Your task to perform on an android device: Clear the cart on newegg.com. Search for "apple airpods pro" on newegg.com, select the first entry, and add it to the cart. Image 0: 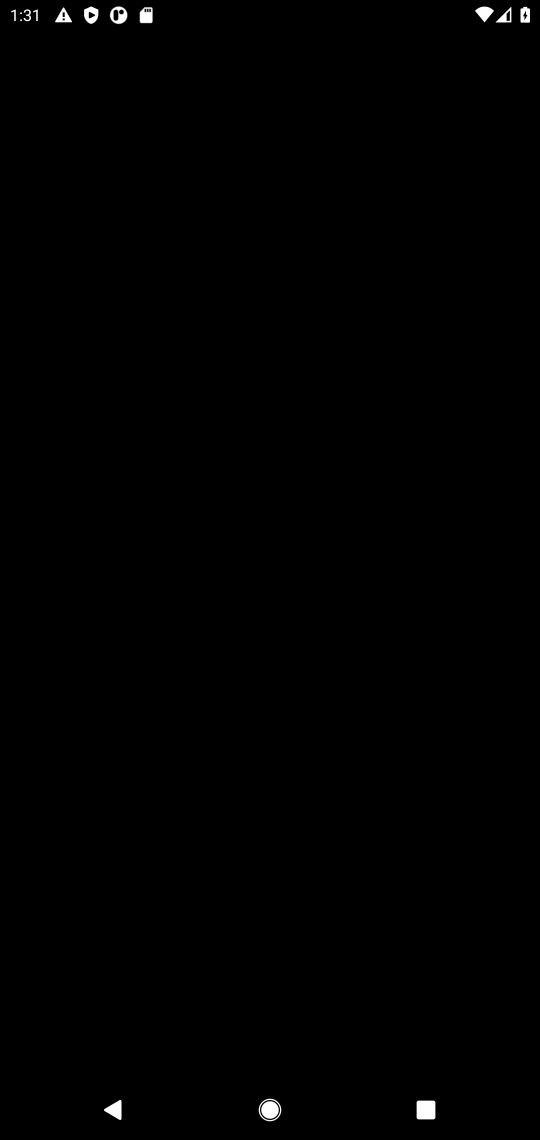
Step 0: press home button
Your task to perform on an android device: Clear the cart on newegg.com. Search for "apple airpods pro" on newegg.com, select the first entry, and add it to the cart. Image 1: 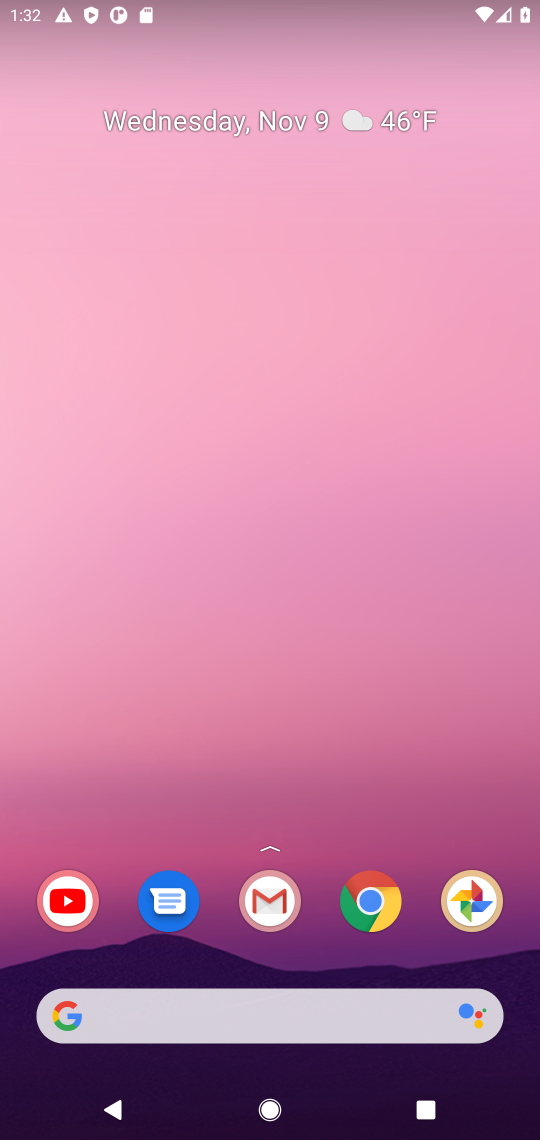
Step 1: click (365, 892)
Your task to perform on an android device: Clear the cart on newegg.com. Search for "apple airpods pro" on newegg.com, select the first entry, and add it to the cart. Image 2: 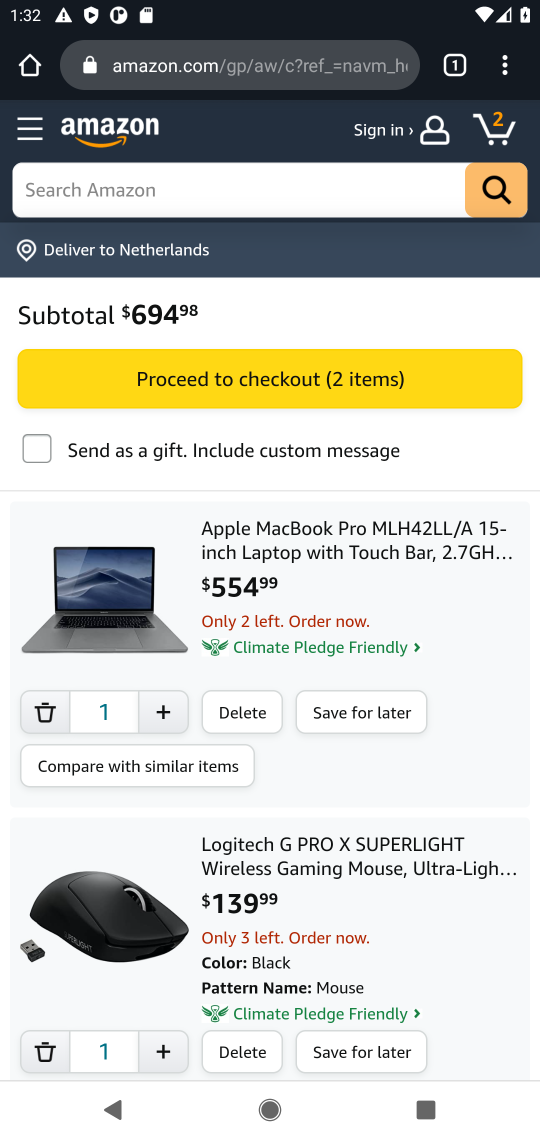
Step 2: click (284, 65)
Your task to perform on an android device: Clear the cart on newegg.com. Search for "apple airpods pro" on newegg.com, select the first entry, and add it to the cart. Image 3: 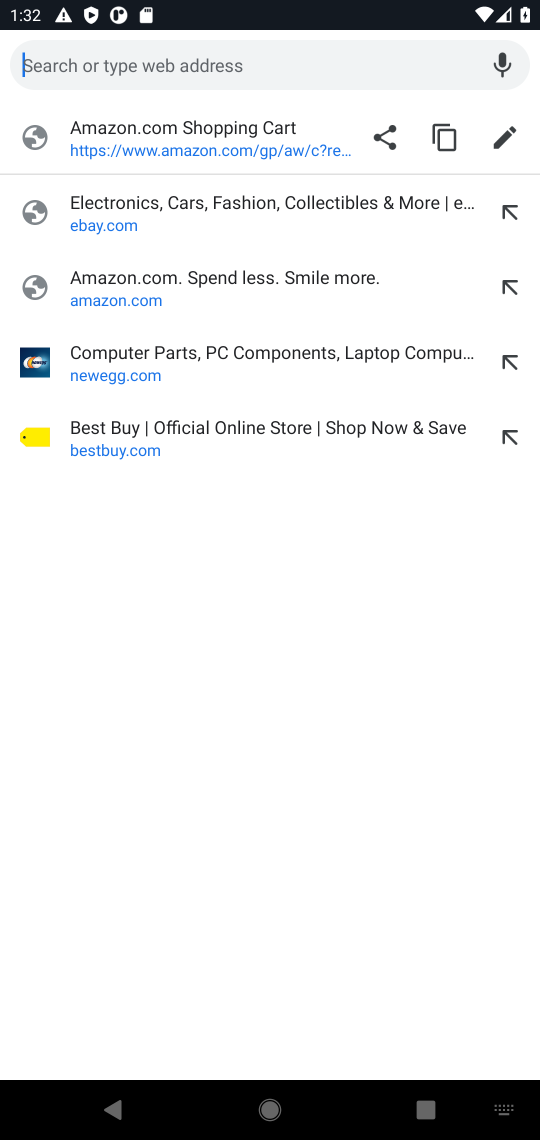
Step 3: type "newegg.com"
Your task to perform on an android device: Clear the cart on newegg.com. Search for "apple airpods pro" on newegg.com, select the first entry, and add it to the cart. Image 4: 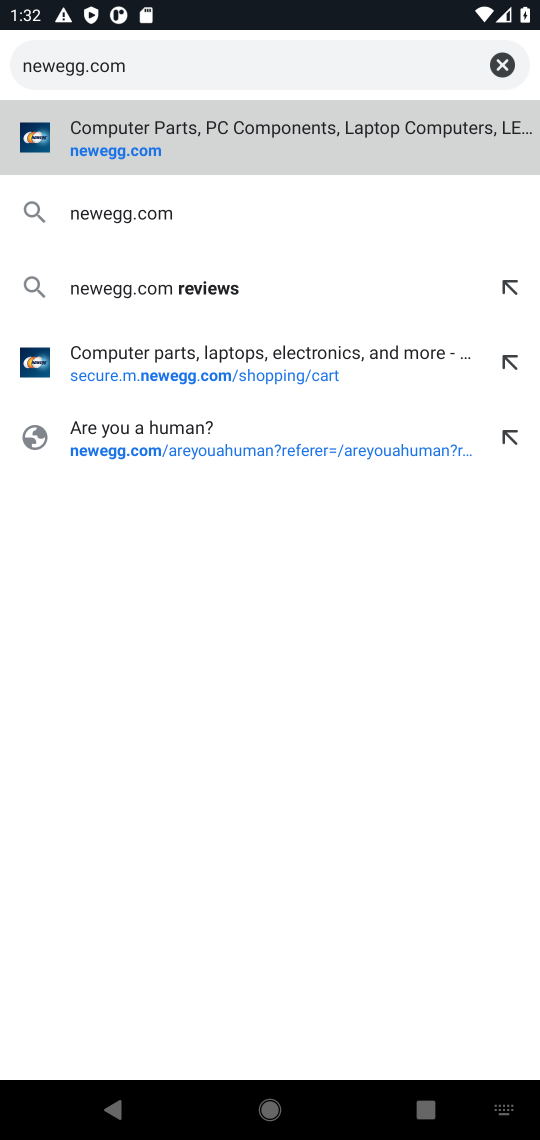
Step 4: press enter
Your task to perform on an android device: Clear the cart on newegg.com. Search for "apple airpods pro" on newegg.com, select the first entry, and add it to the cart. Image 5: 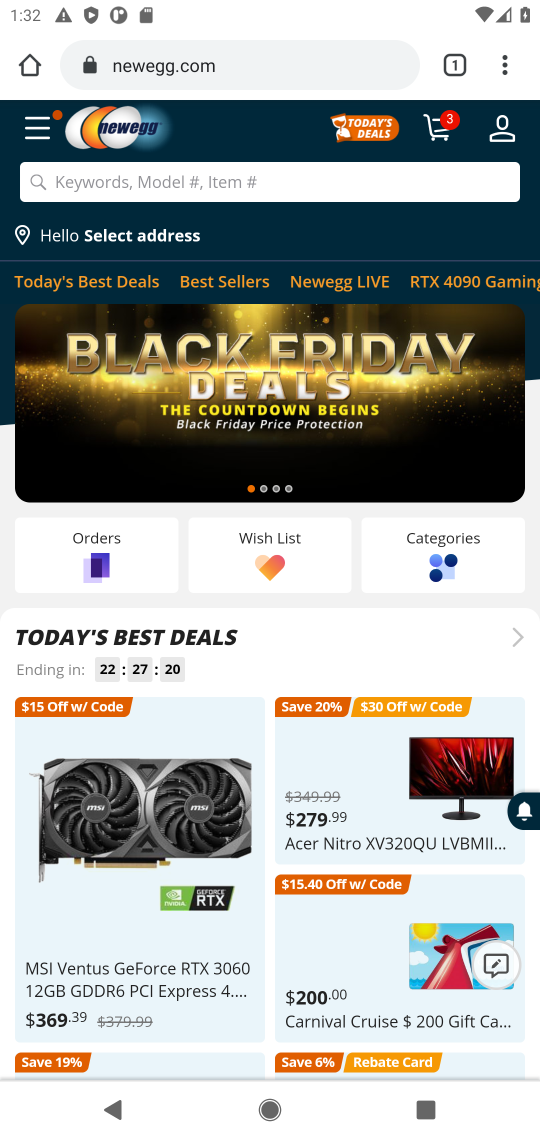
Step 5: click (433, 133)
Your task to perform on an android device: Clear the cart on newegg.com. Search for "apple airpods pro" on newegg.com, select the first entry, and add it to the cart. Image 6: 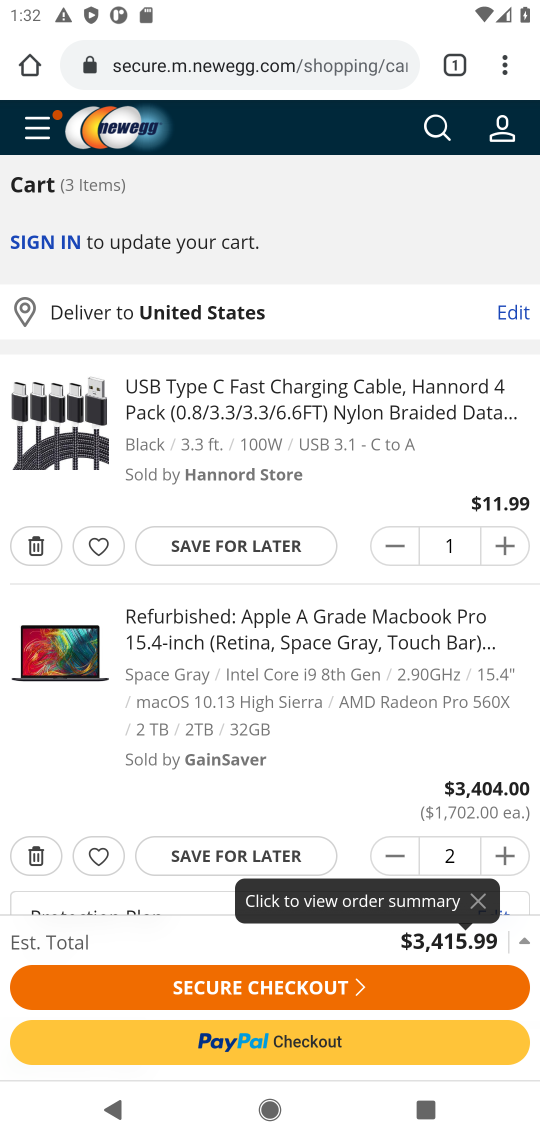
Step 6: drag from (365, 728) to (359, 640)
Your task to perform on an android device: Clear the cart on newegg.com. Search for "apple airpods pro" on newegg.com, select the first entry, and add it to the cart. Image 7: 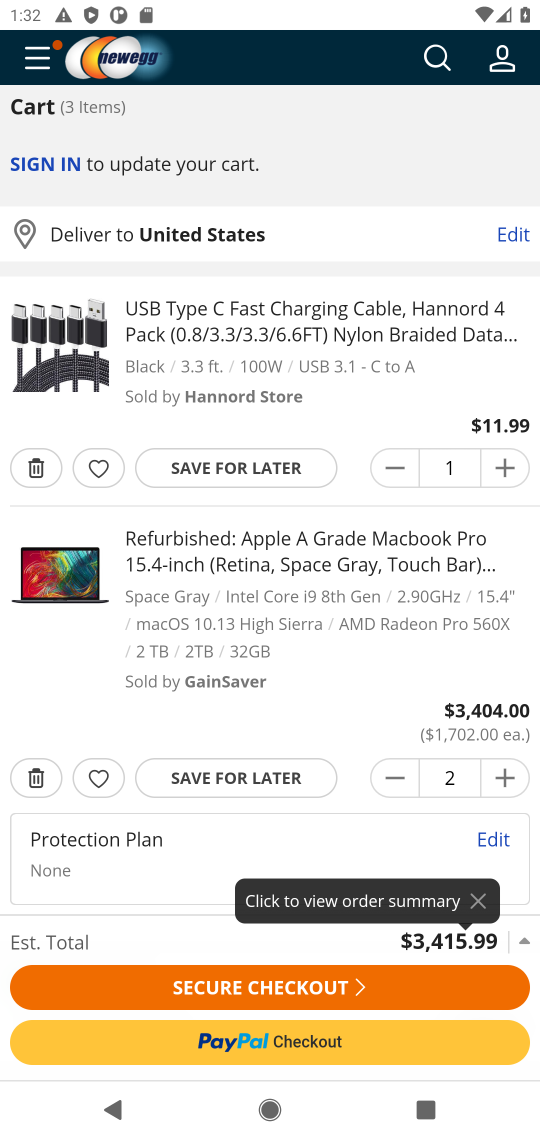
Step 7: click (36, 468)
Your task to perform on an android device: Clear the cart on newegg.com. Search for "apple airpods pro" on newegg.com, select the first entry, and add it to the cart. Image 8: 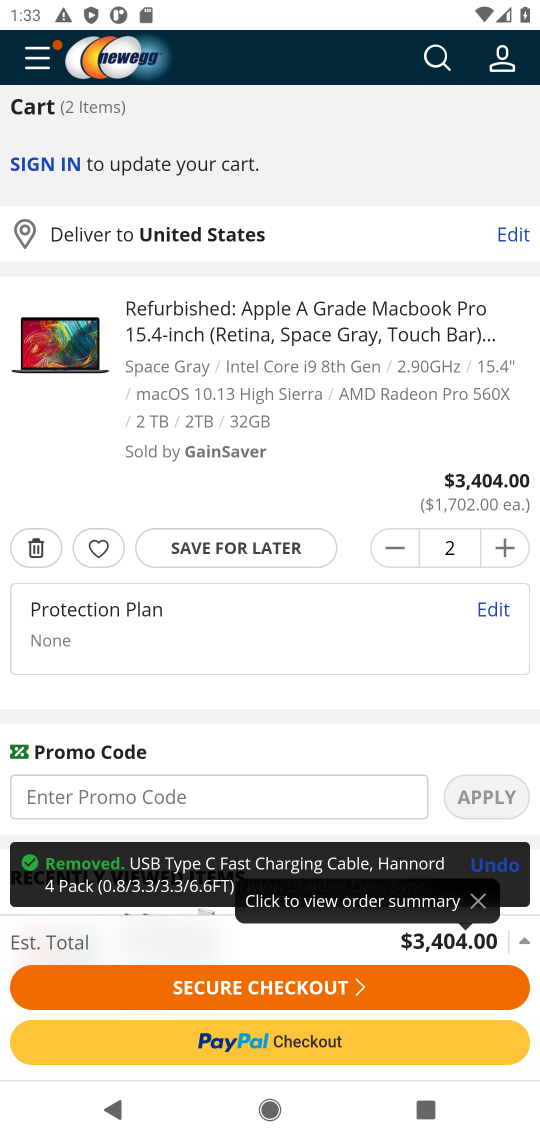
Step 8: click (34, 551)
Your task to perform on an android device: Clear the cart on newegg.com. Search for "apple airpods pro" on newegg.com, select the first entry, and add it to the cart. Image 9: 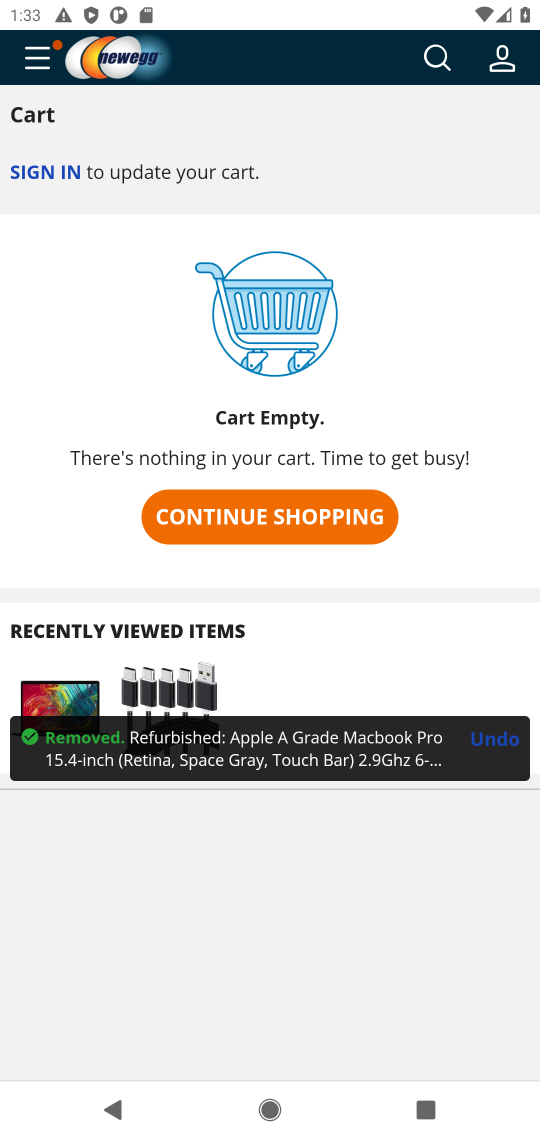
Step 9: click (441, 51)
Your task to perform on an android device: Clear the cart on newegg.com. Search for "apple airpods pro" on newegg.com, select the first entry, and add it to the cart. Image 10: 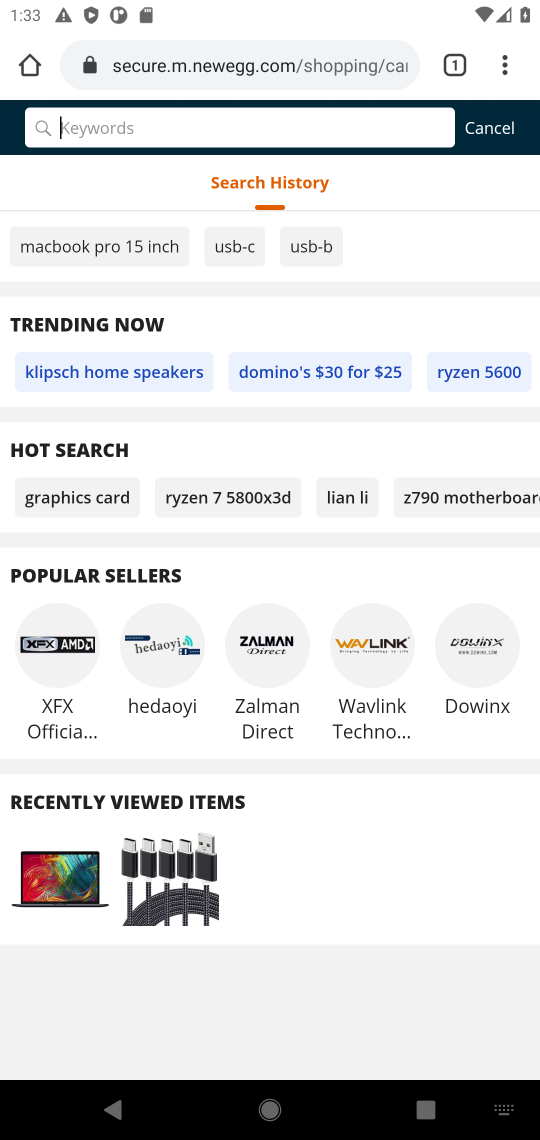
Step 10: click (496, 131)
Your task to perform on an android device: Clear the cart on newegg.com. Search for "apple airpods pro" on newegg.com, select the first entry, and add it to the cart. Image 11: 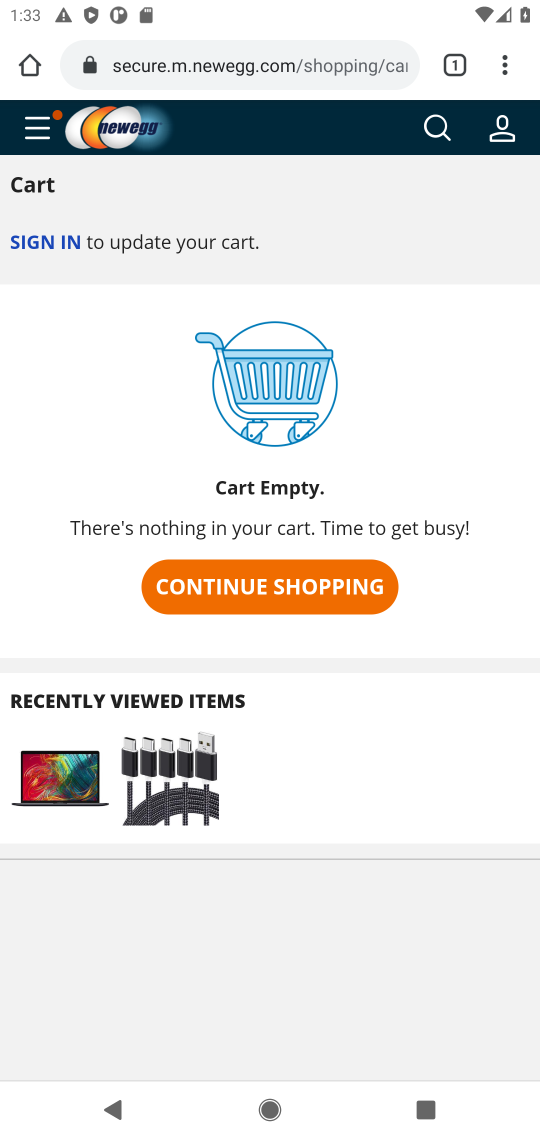
Step 11: click (437, 132)
Your task to perform on an android device: Clear the cart on newegg.com. Search for "apple airpods pro" on newegg.com, select the first entry, and add it to the cart. Image 12: 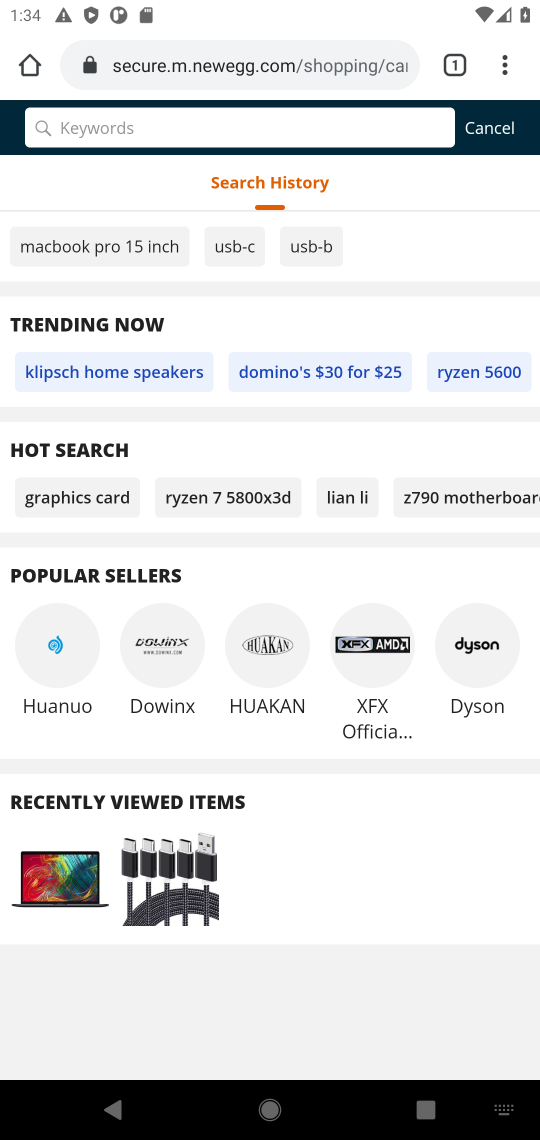
Step 12: type "apple airpods pro"
Your task to perform on an android device: Clear the cart on newegg.com. Search for "apple airpods pro" on newegg.com, select the first entry, and add it to the cart. Image 13: 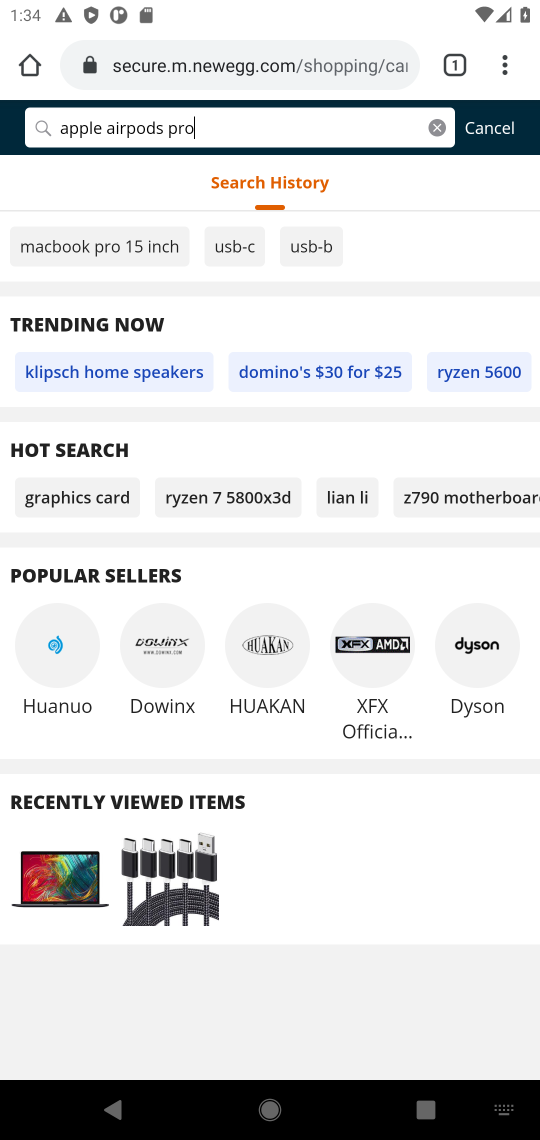
Step 13: press enter
Your task to perform on an android device: Clear the cart on newegg.com. Search for "apple airpods pro" on newegg.com, select the first entry, and add it to the cart. Image 14: 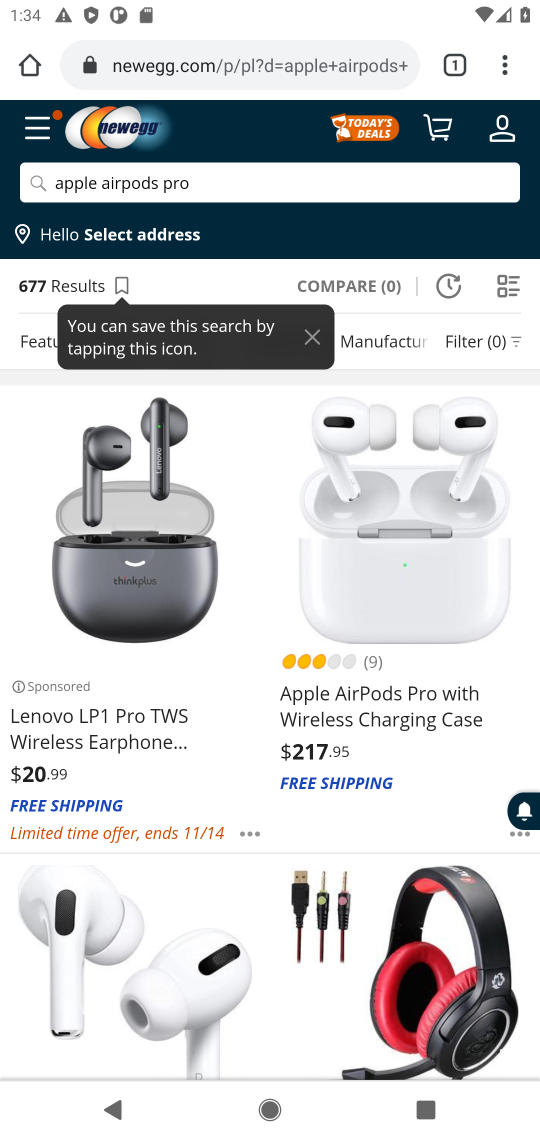
Step 14: click (451, 503)
Your task to perform on an android device: Clear the cart on newegg.com. Search for "apple airpods pro" on newegg.com, select the first entry, and add it to the cart. Image 15: 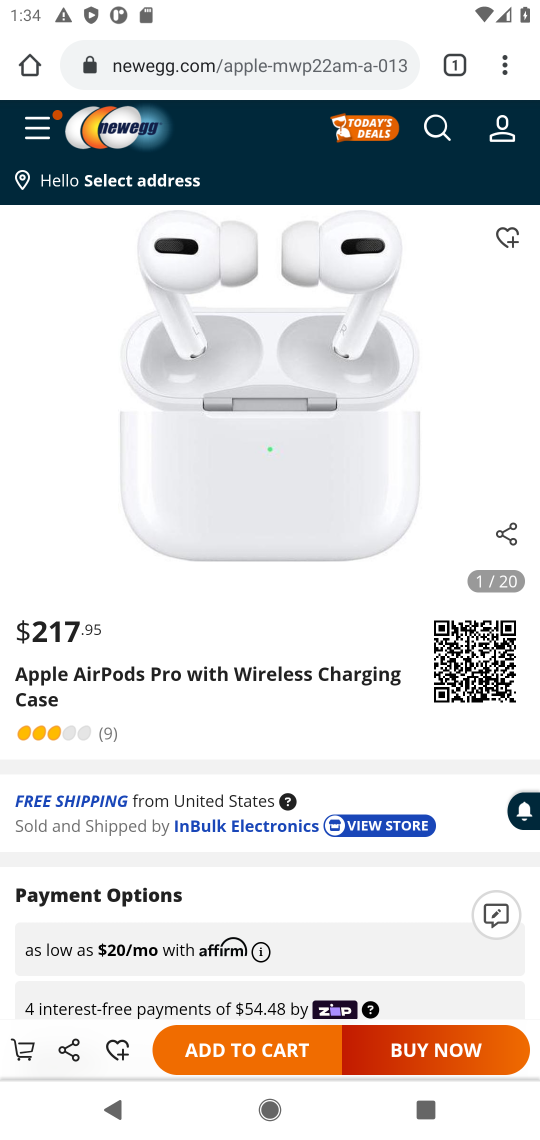
Step 15: click (238, 1044)
Your task to perform on an android device: Clear the cart on newegg.com. Search for "apple airpods pro" on newegg.com, select the first entry, and add it to the cart. Image 16: 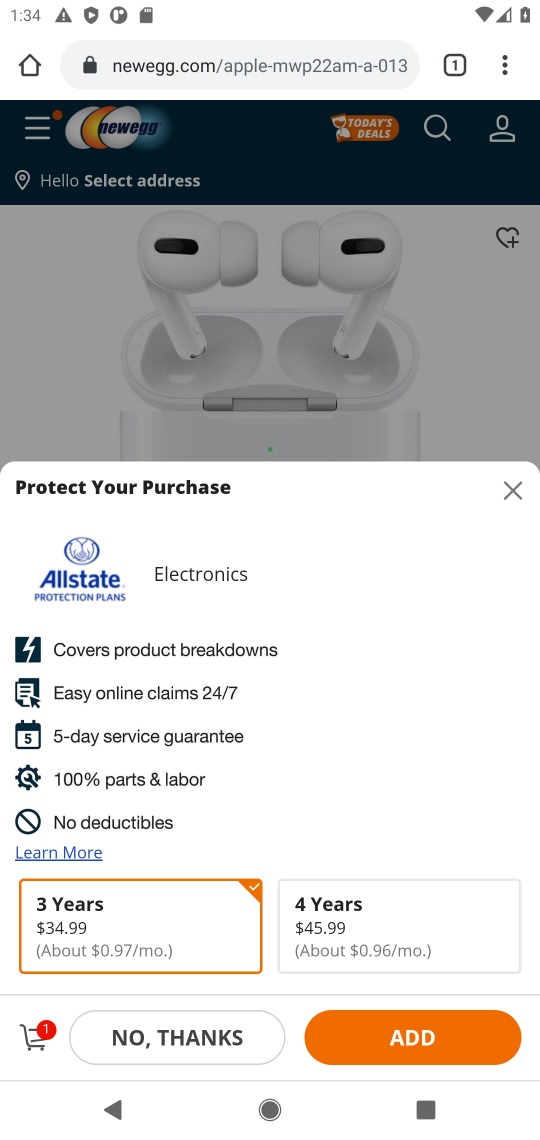
Step 16: task complete